Your task to perform on an android device: find photos in the google photos app Image 0: 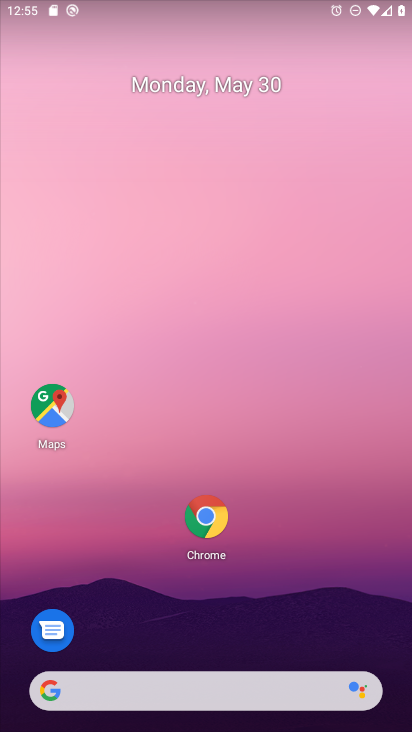
Step 0: press home button
Your task to perform on an android device: find photos in the google photos app Image 1: 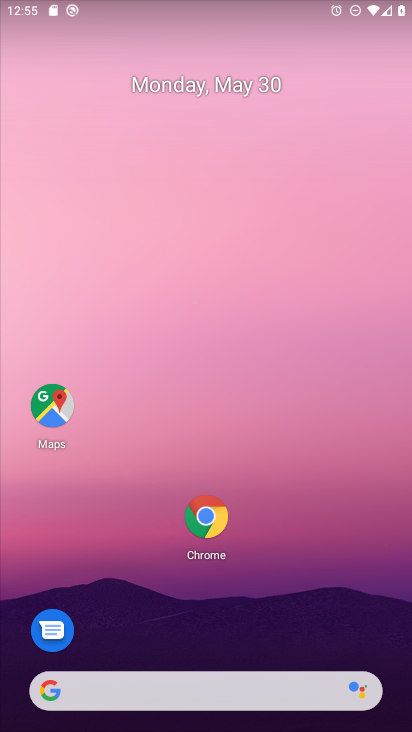
Step 1: drag from (228, 641) to (304, 127)
Your task to perform on an android device: find photos in the google photos app Image 2: 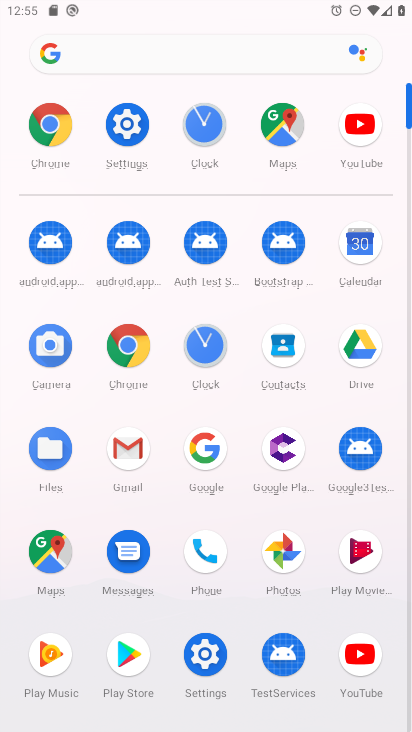
Step 2: click (278, 552)
Your task to perform on an android device: find photos in the google photos app Image 3: 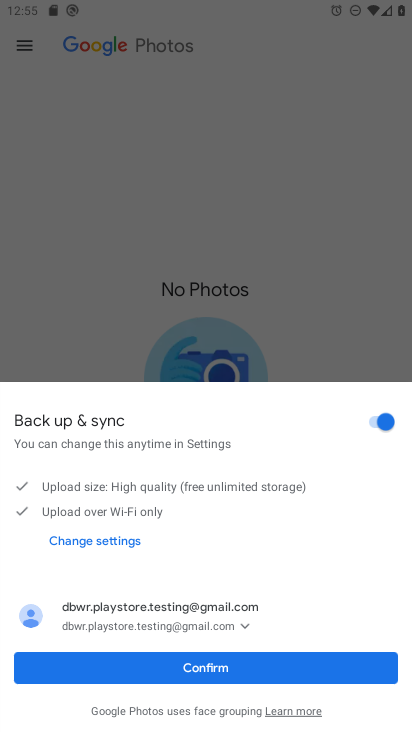
Step 3: click (201, 671)
Your task to perform on an android device: find photos in the google photos app Image 4: 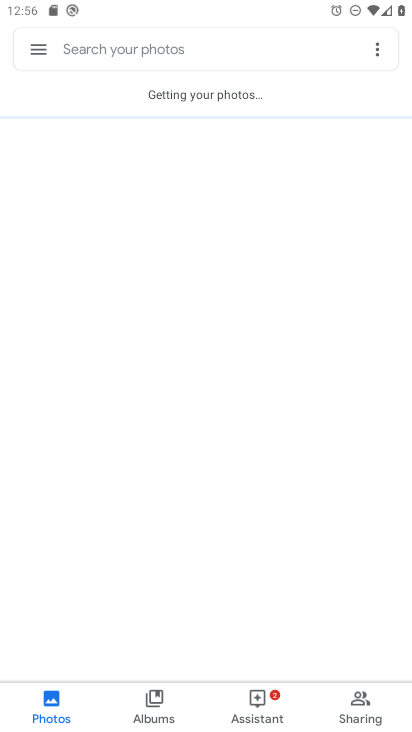
Step 4: task complete